Your task to perform on an android device: What is the recent news? Image 0: 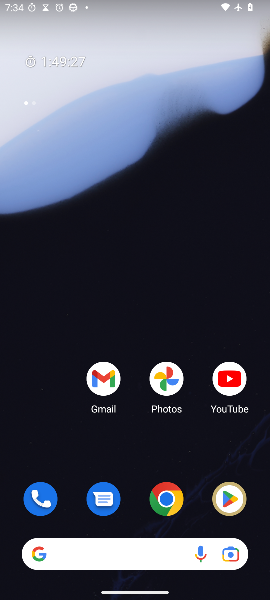
Step 0: drag from (90, 522) to (114, 124)
Your task to perform on an android device: What is the recent news? Image 1: 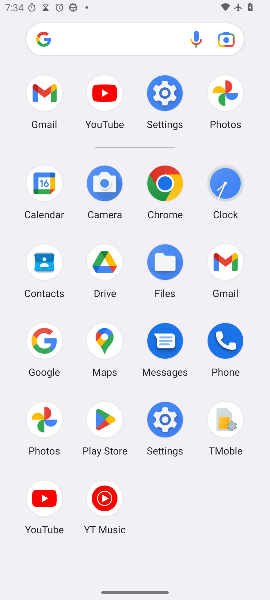
Step 1: click (176, 188)
Your task to perform on an android device: What is the recent news? Image 2: 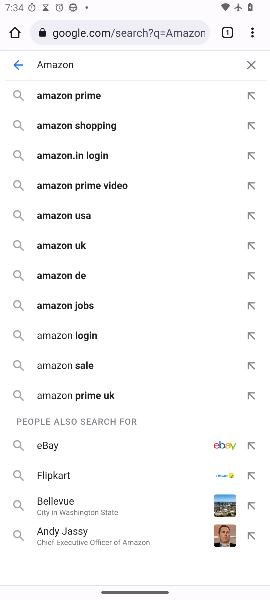
Step 2: press back button
Your task to perform on an android device: What is the recent news? Image 3: 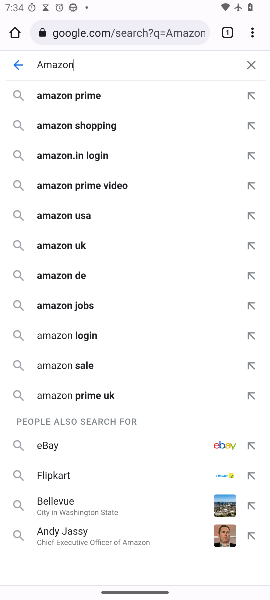
Step 3: press back button
Your task to perform on an android device: What is the recent news? Image 4: 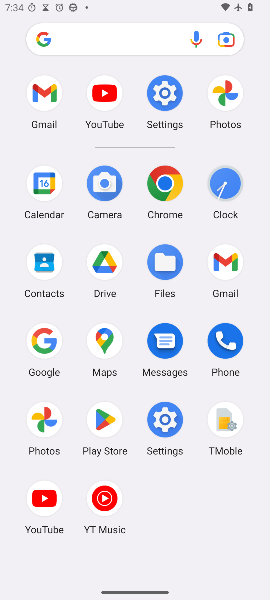
Step 4: click (159, 197)
Your task to perform on an android device: What is the recent news? Image 5: 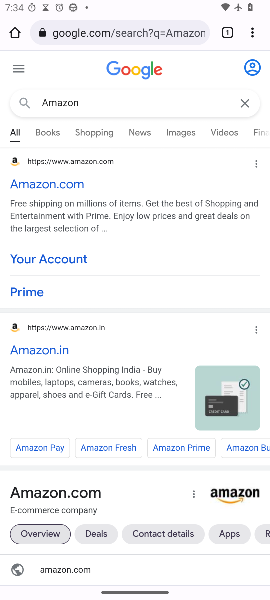
Step 5: click (149, 36)
Your task to perform on an android device: What is the recent news? Image 6: 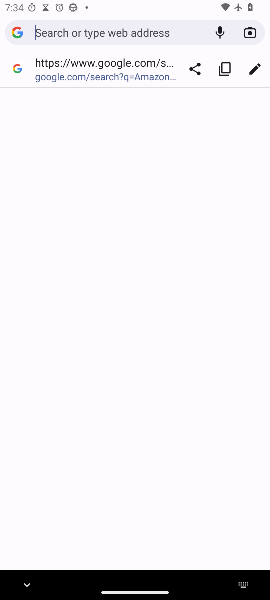
Step 6: press back button
Your task to perform on an android device: What is the recent news? Image 7: 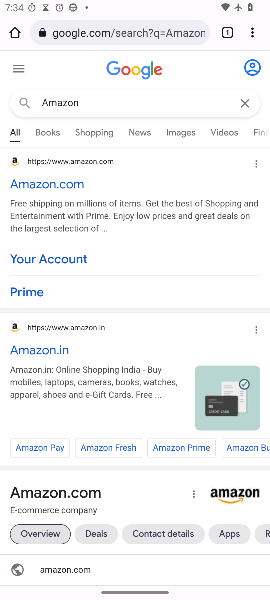
Step 7: press back button
Your task to perform on an android device: What is the recent news? Image 8: 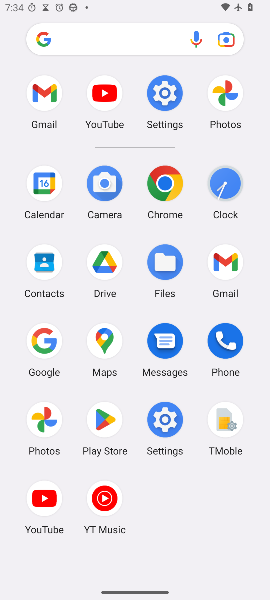
Step 8: click (171, 196)
Your task to perform on an android device: What is the recent news? Image 9: 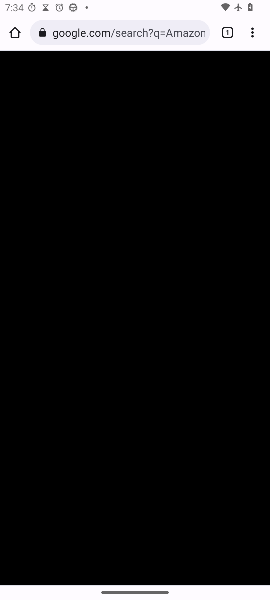
Step 9: task complete